Your task to perform on an android device: turn vacation reply on in the gmail app Image 0: 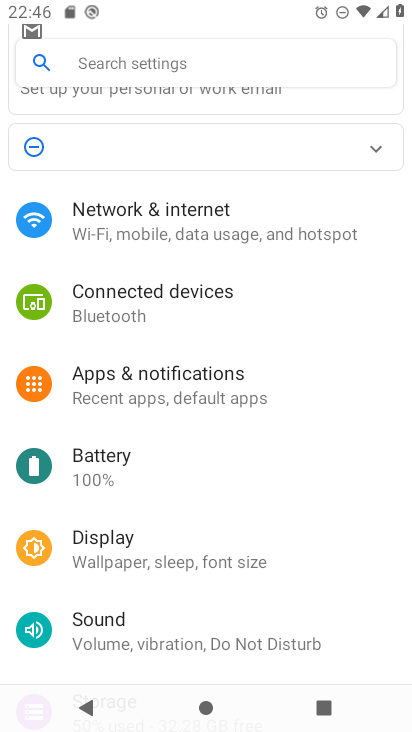
Step 0: press home button
Your task to perform on an android device: turn vacation reply on in the gmail app Image 1: 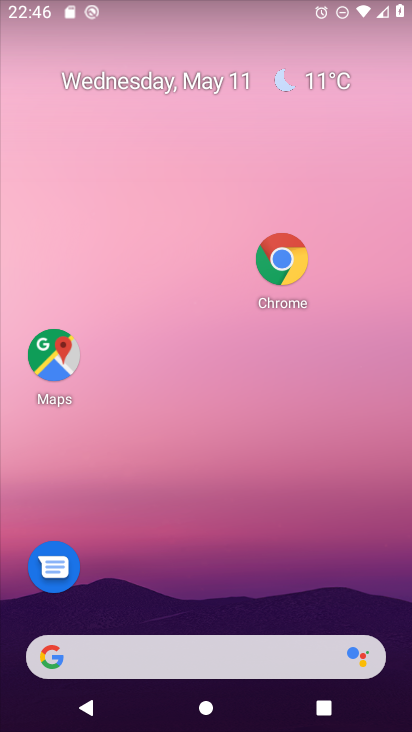
Step 1: drag from (114, 665) to (320, 125)
Your task to perform on an android device: turn vacation reply on in the gmail app Image 2: 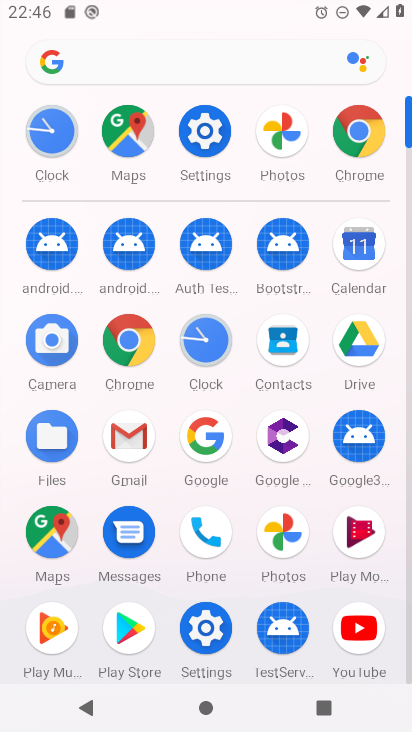
Step 2: click (133, 448)
Your task to perform on an android device: turn vacation reply on in the gmail app Image 3: 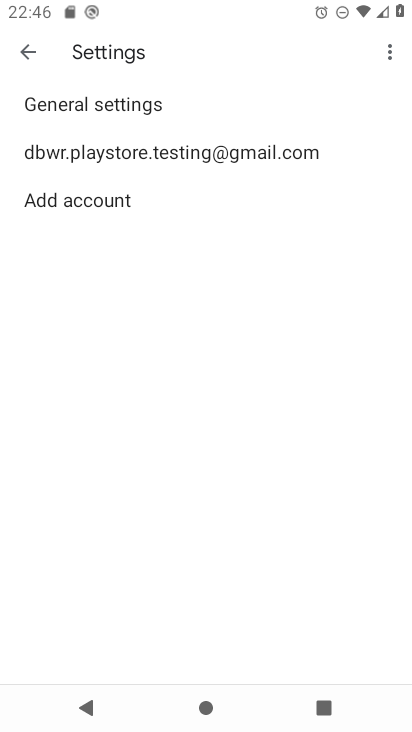
Step 3: click (138, 152)
Your task to perform on an android device: turn vacation reply on in the gmail app Image 4: 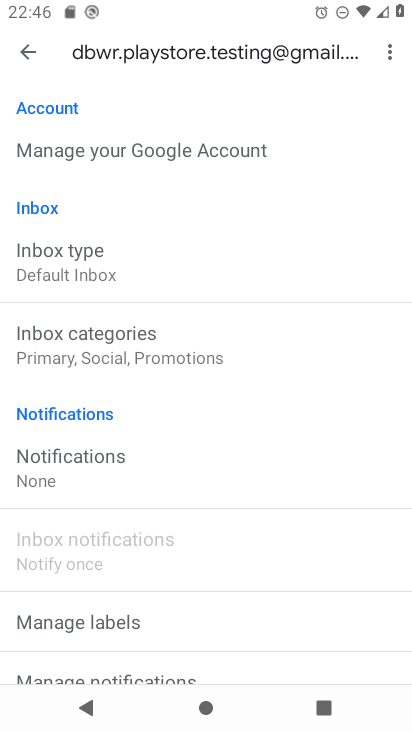
Step 4: drag from (188, 629) to (408, 170)
Your task to perform on an android device: turn vacation reply on in the gmail app Image 5: 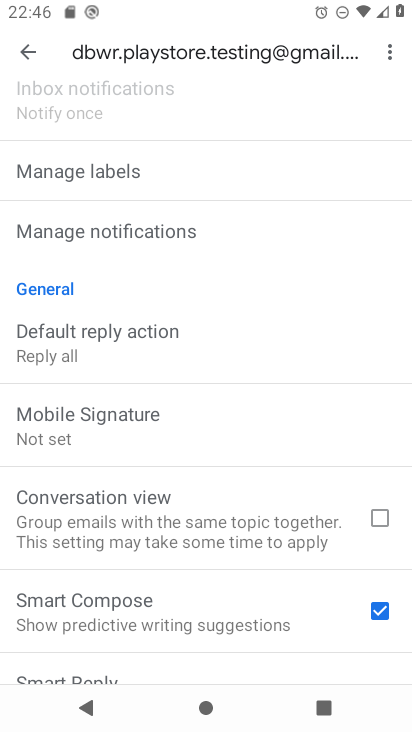
Step 5: drag from (181, 593) to (397, 105)
Your task to perform on an android device: turn vacation reply on in the gmail app Image 6: 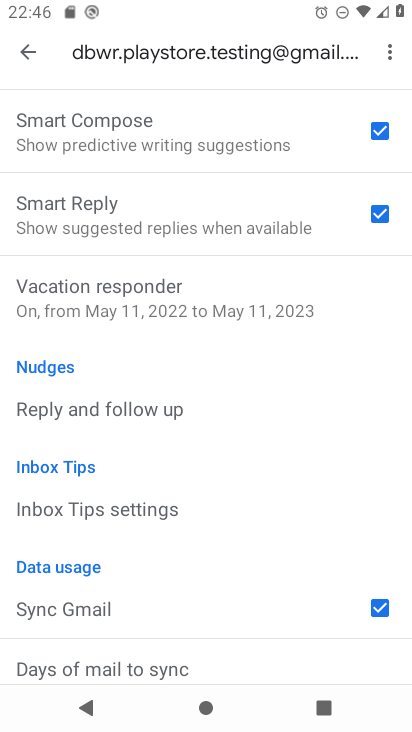
Step 6: drag from (157, 619) to (193, 528)
Your task to perform on an android device: turn vacation reply on in the gmail app Image 7: 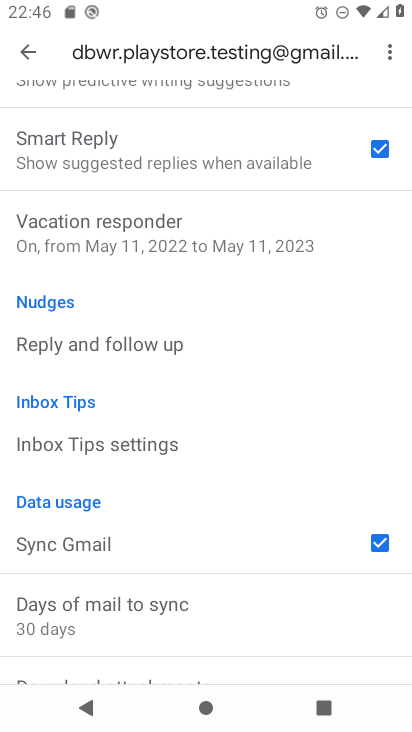
Step 7: click (186, 239)
Your task to perform on an android device: turn vacation reply on in the gmail app Image 8: 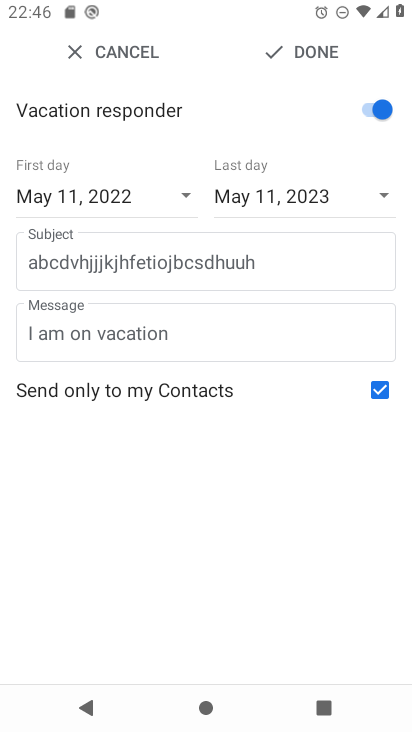
Step 8: task complete